Your task to perform on an android device: check android version Image 0: 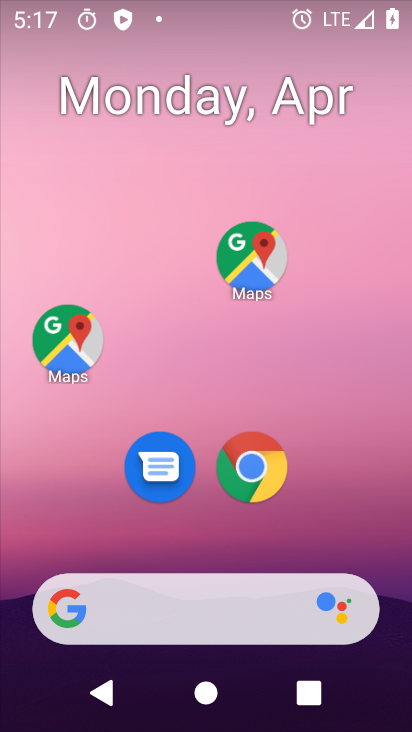
Step 0: drag from (330, 446) to (332, 0)
Your task to perform on an android device: check android version Image 1: 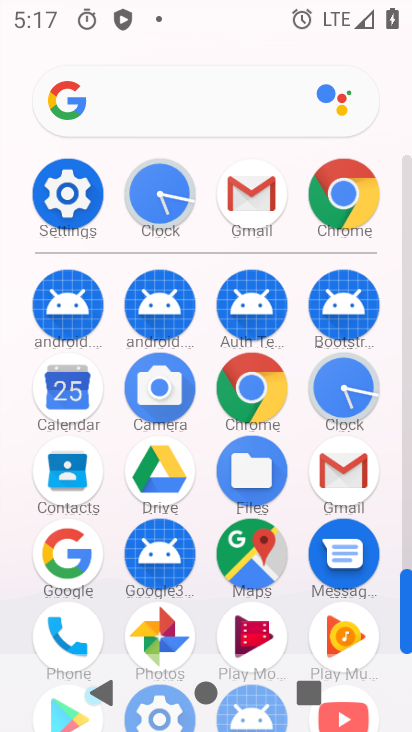
Step 1: drag from (305, 568) to (317, 102)
Your task to perform on an android device: check android version Image 2: 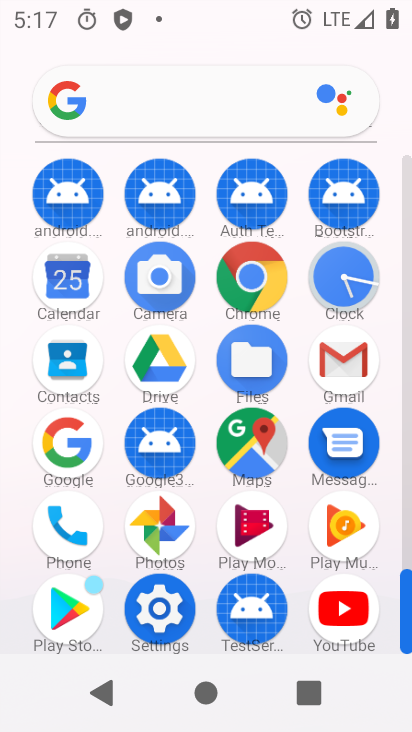
Step 2: click (170, 623)
Your task to perform on an android device: check android version Image 3: 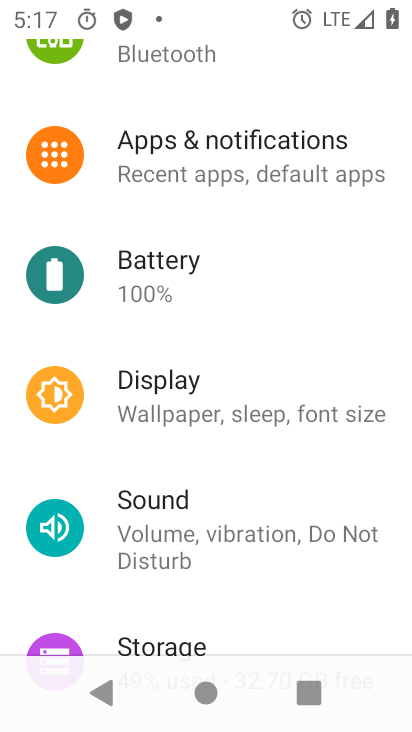
Step 3: drag from (268, 653) to (283, 143)
Your task to perform on an android device: check android version Image 4: 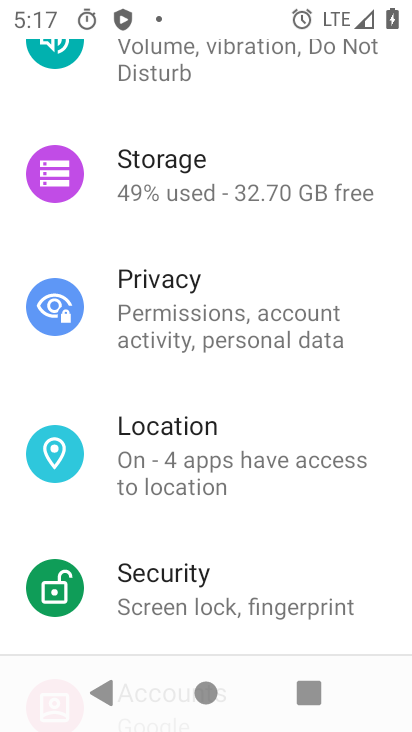
Step 4: drag from (249, 647) to (325, 124)
Your task to perform on an android device: check android version Image 5: 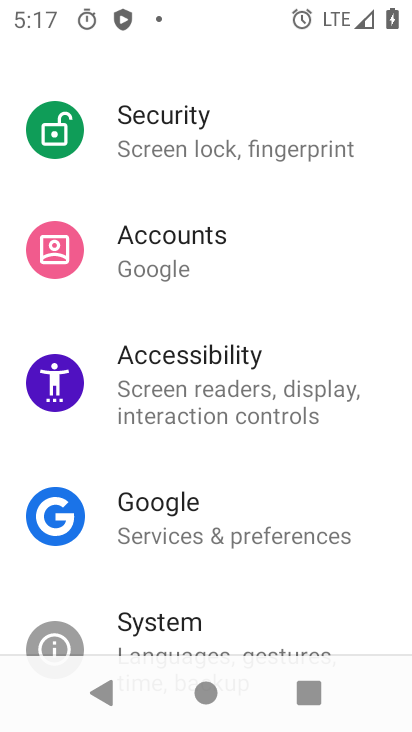
Step 5: drag from (232, 652) to (318, 83)
Your task to perform on an android device: check android version Image 6: 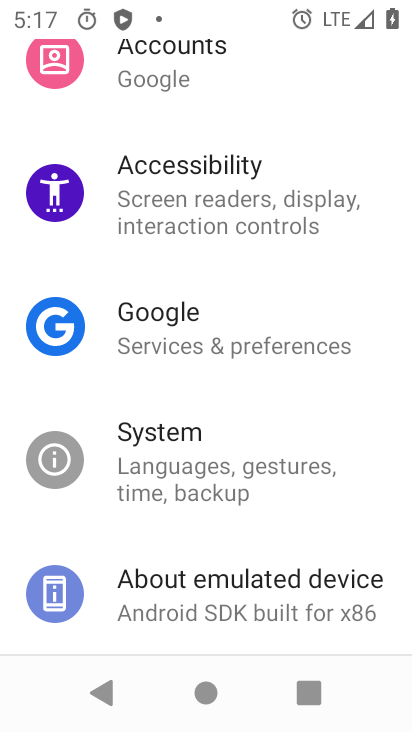
Step 6: click (247, 617)
Your task to perform on an android device: check android version Image 7: 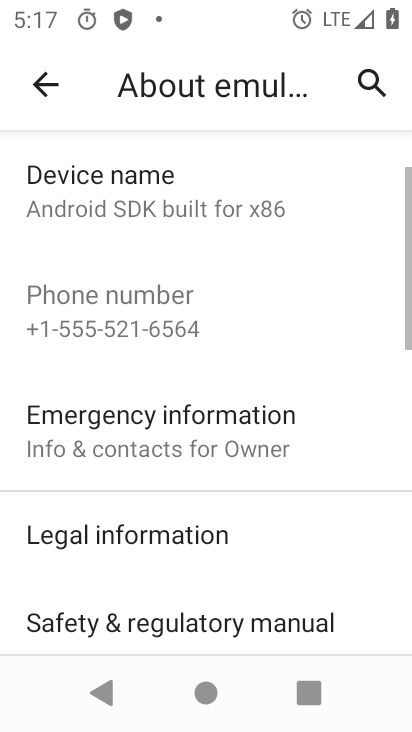
Step 7: drag from (236, 629) to (215, 150)
Your task to perform on an android device: check android version Image 8: 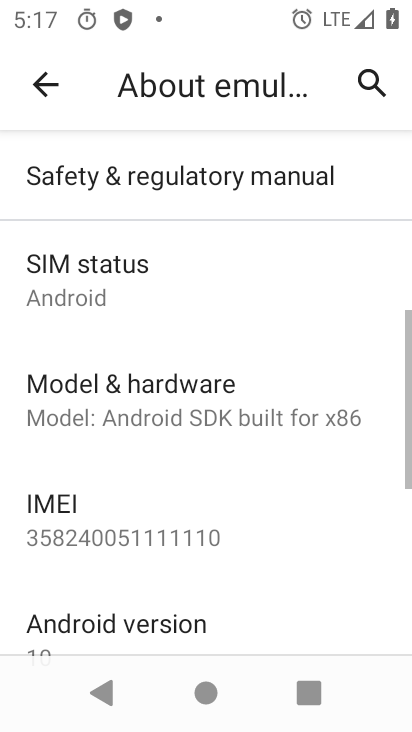
Step 8: drag from (255, 649) to (344, 152)
Your task to perform on an android device: check android version Image 9: 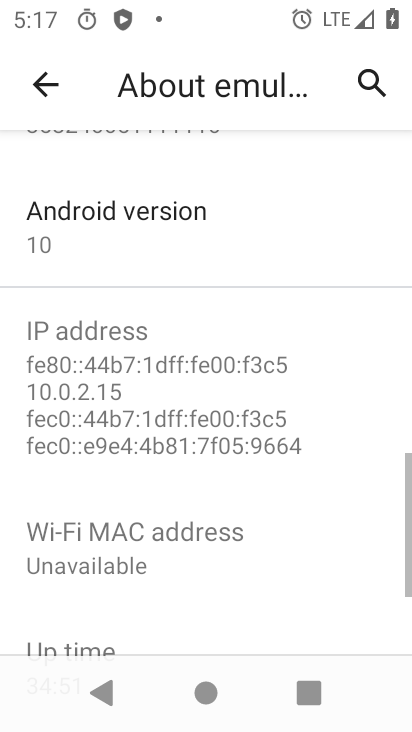
Step 9: drag from (281, 606) to (284, 181)
Your task to perform on an android device: check android version Image 10: 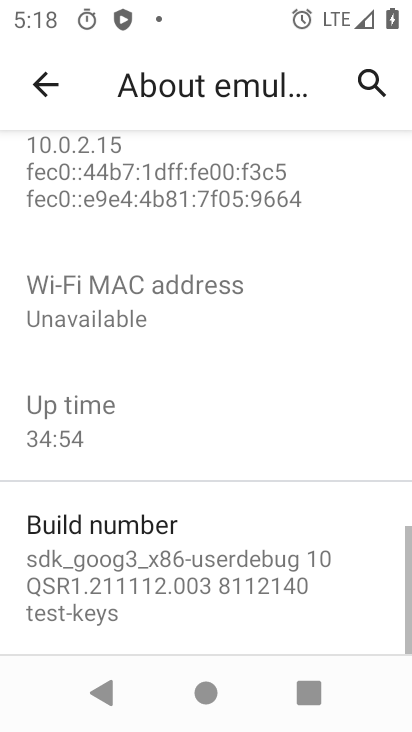
Step 10: drag from (263, 185) to (280, 663)
Your task to perform on an android device: check android version Image 11: 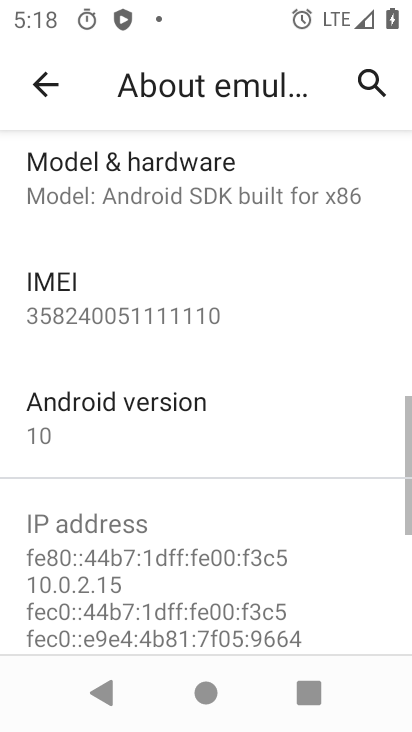
Step 11: click (167, 429)
Your task to perform on an android device: check android version Image 12: 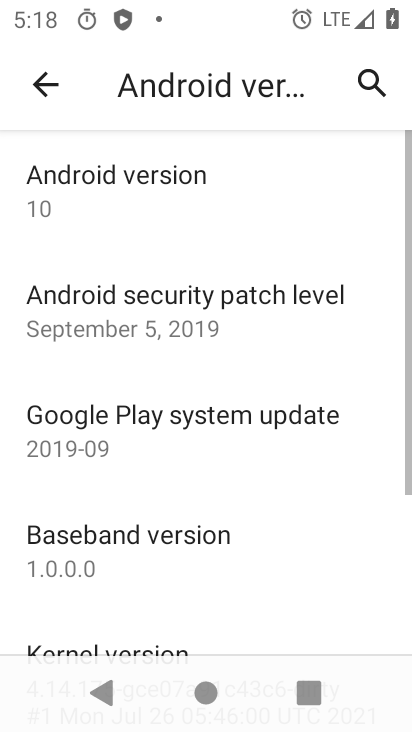
Step 12: task complete